Your task to perform on an android device: turn off data saver in the chrome app Image 0: 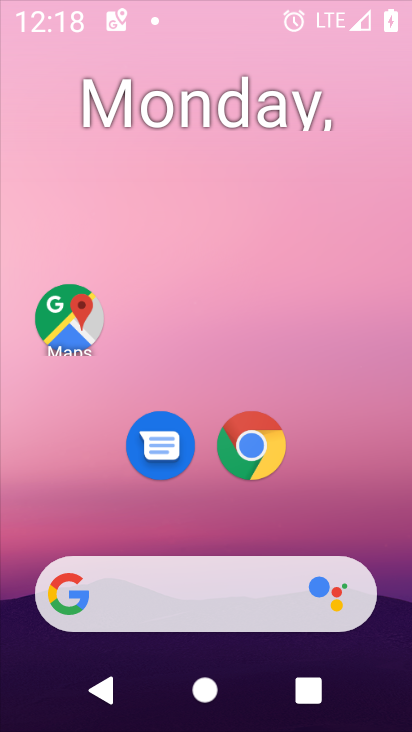
Step 0: drag from (159, 509) to (216, 181)
Your task to perform on an android device: turn off data saver in the chrome app Image 1: 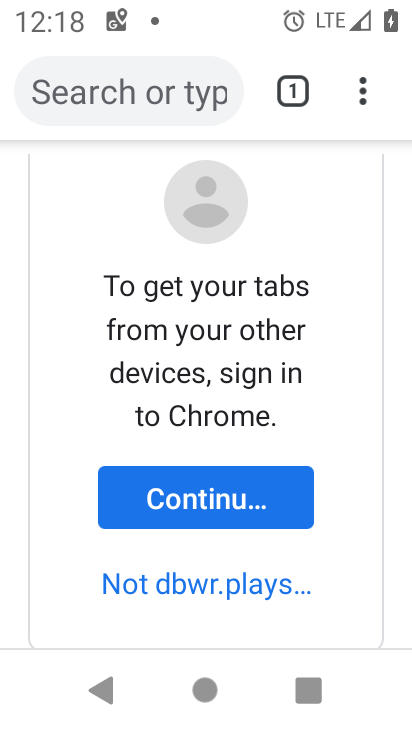
Step 1: press home button
Your task to perform on an android device: turn off data saver in the chrome app Image 2: 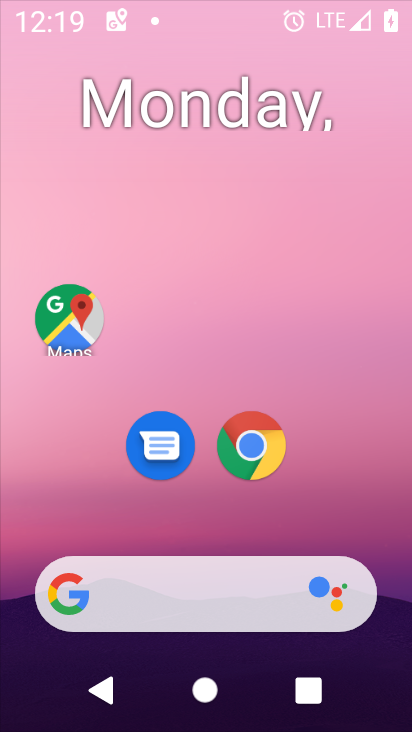
Step 2: drag from (183, 571) to (242, 167)
Your task to perform on an android device: turn off data saver in the chrome app Image 3: 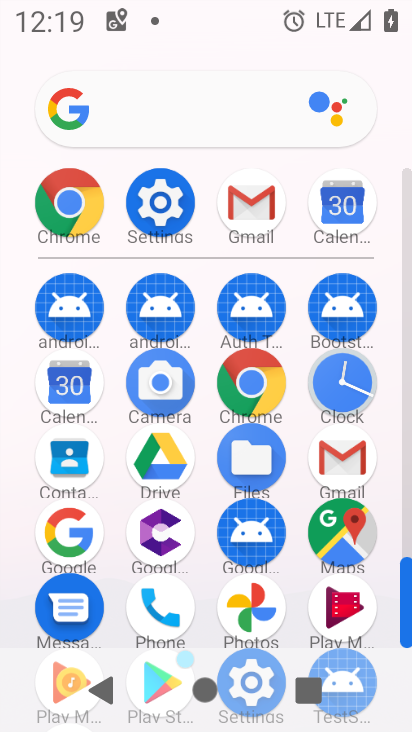
Step 3: click (230, 383)
Your task to perform on an android device: turn off data saver in the chrome app Image 4: 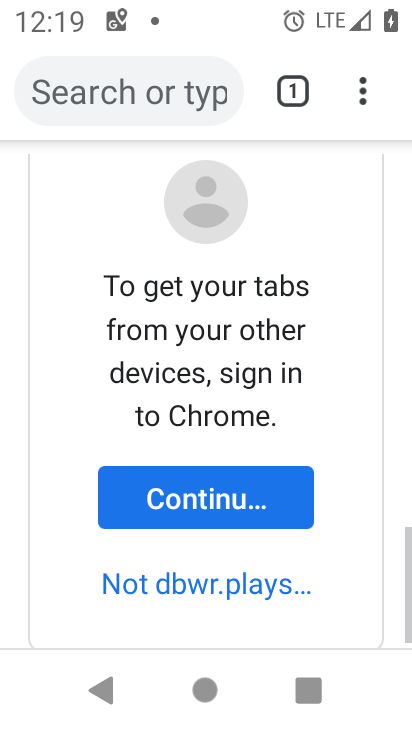
Step 4: drag from (270, 584) to (312, 304)
Your task to perform on an android device: turn off data saver in the chrome app Image 5: 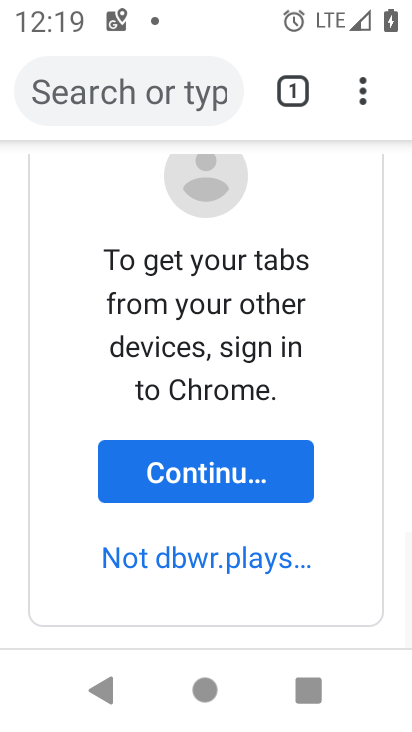
Step 5: click (367, 86)
Your task to perform on an android device: turn off data saver in the chrome app Image 6: 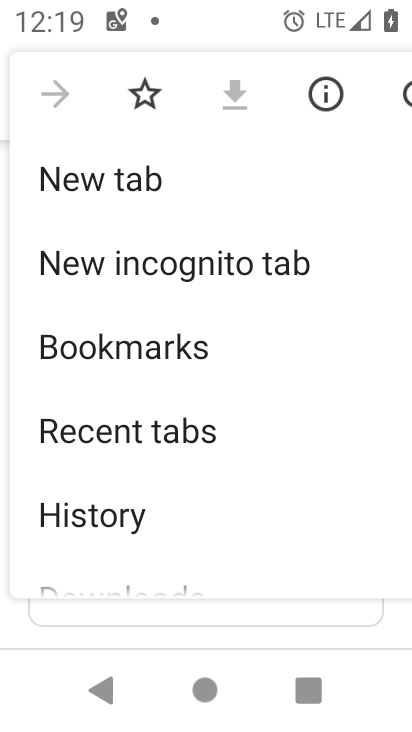
Step 6: drag from (201, 470) to (259, 200)
Your task to perform on an android device: turn off data saver in the chrome app Image 7: 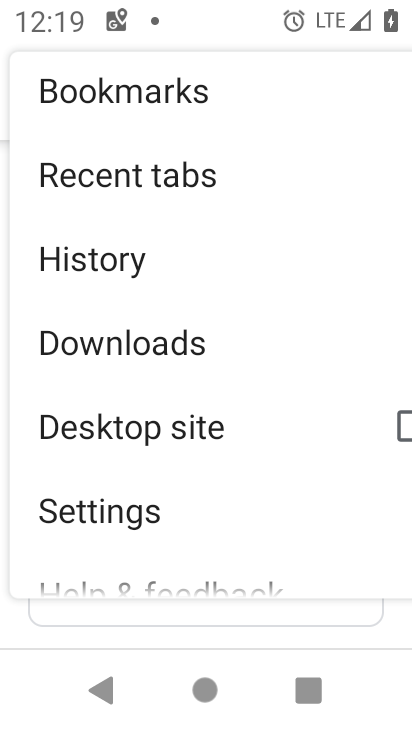
Step 7: click (163, 500)
Your task to perform on an android device: turn off data saver in the chrome app Image 8: 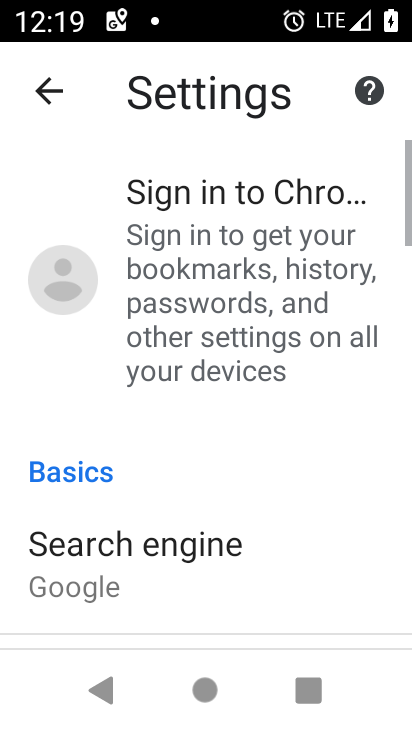
Step 8: click (44, 96)
Your task to perform on an android device: turn off data saver in the chrome app Image 9: 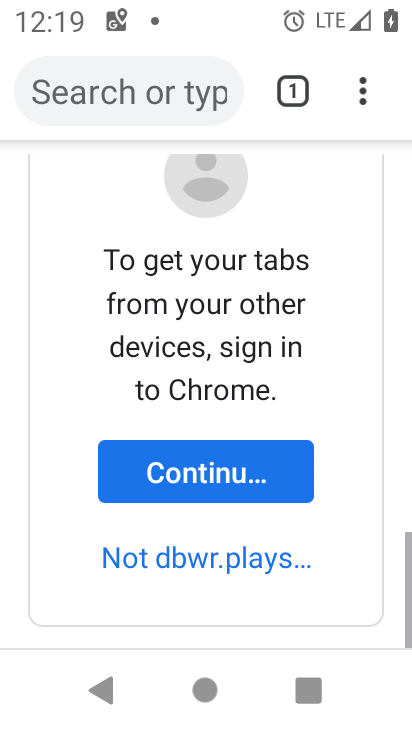
Step 9: drag from (228, 494) to (356, 34)
Your task to perform on an android device: turn off data saver in the chrome app Image 10: 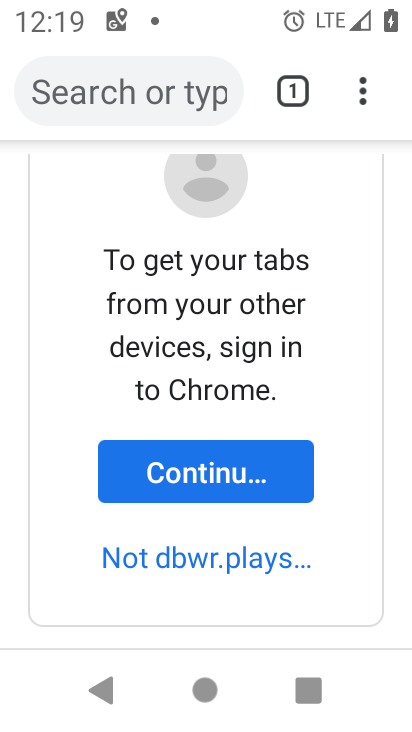
Step 10: drag from (247, 612) to (241, 342)
Your task to perform on an android device: turn off data saver in the chrome app Image 11: 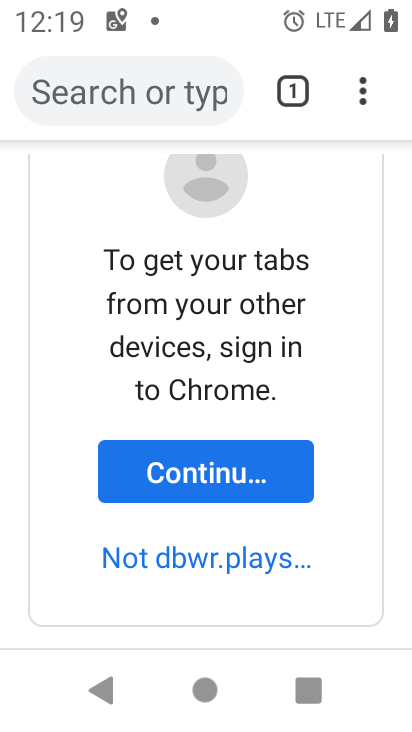
Step 11: drag from (195, 602) to (242, 61)
Your task to perform on an android device: turn off data saver in the chrome app Image 12: 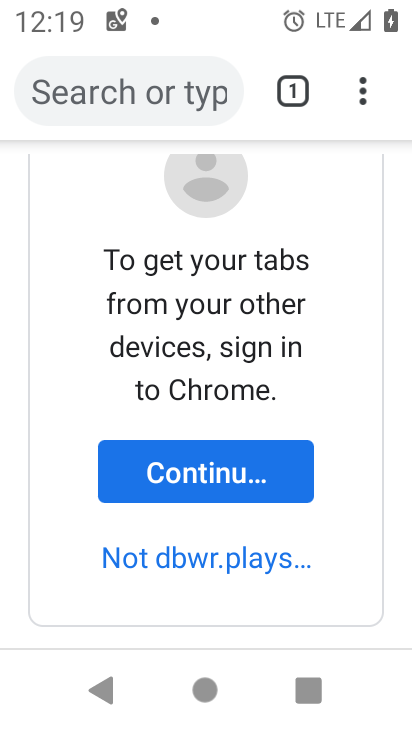
Step 12: drag from (282, 544) to (373, 151)
Your task to perform on an android device: turn off data saver in the chrome app Image 13: 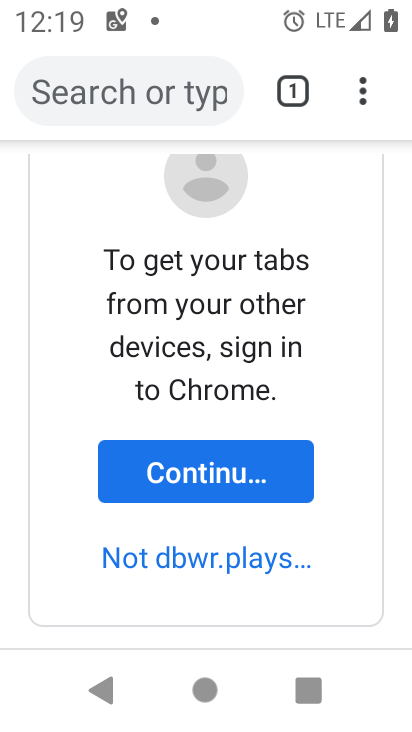
Step 13: drag from (310, 292) to (301, 677)
Your task to perform on an android device: turn off data saver in the chrome app Image 14: 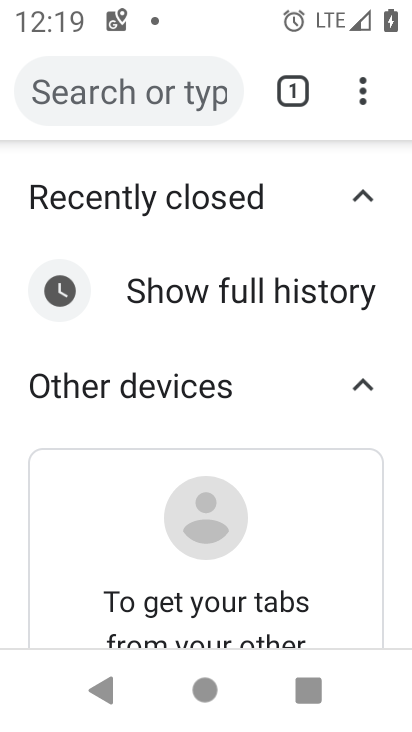
Step 14: drag from (370, 88) to (148, 476)
Your task to perform on an android device: turn off data saver in the chrome app Image 15: 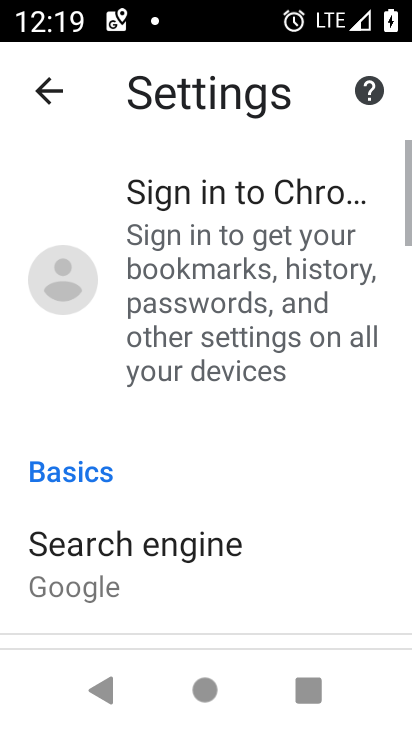
Step 15: drag from (248, 505) to (266, 191)
Your task to perform on an android device: turn off data saver in the chrome app Image 16: 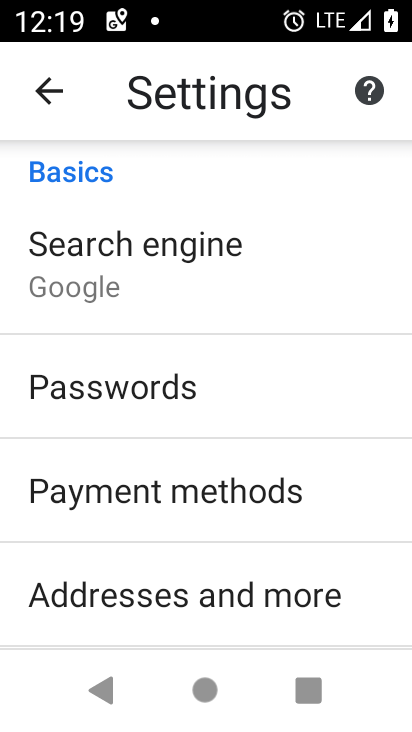
Step 16: drag from (212, 489) to (290, 120)
Your task to perform on an android device: turn off data saver in the chrome app Image 17: 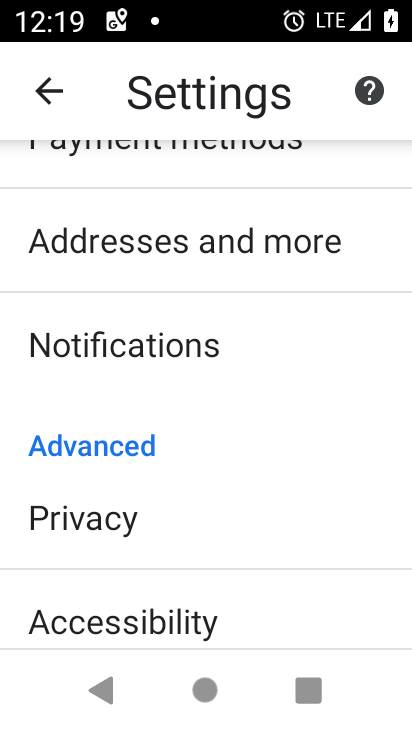
Step 17: drag from (198, 541) to (227, 267)
Your task to perform on an android device: turn off data saver in the chrome app Image 18: 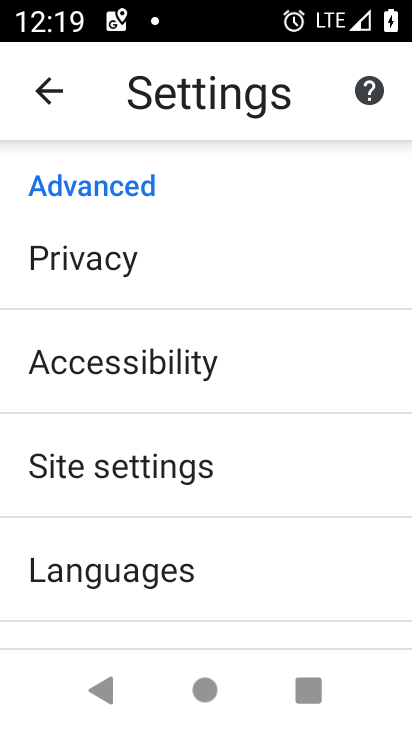
Step 18: drag from (200, 564) to (310, 199)
Your task to perform on an android device: turn off data saver in the chrome app Image 19: 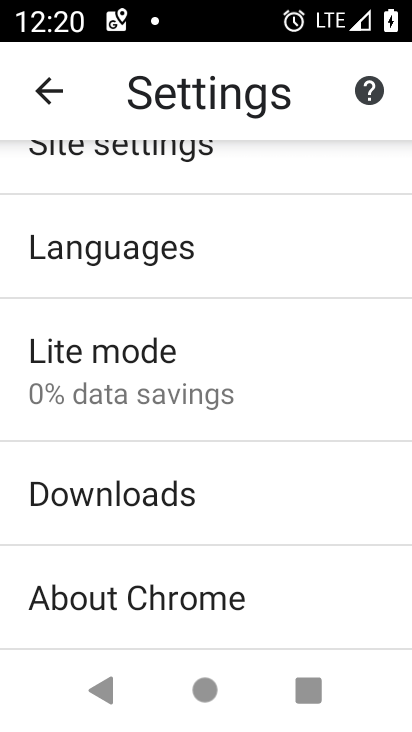
Step 19: click (252, 362)
Your task to perform on an android device: turn off data saver in the chrome app Image 20: 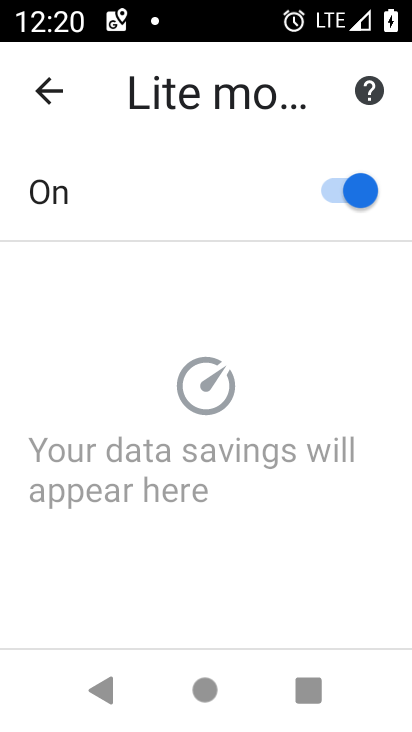
Step 20: click (327, 180)
Your task to perform on an android device: turn off data saver in the chrome app Image 21: 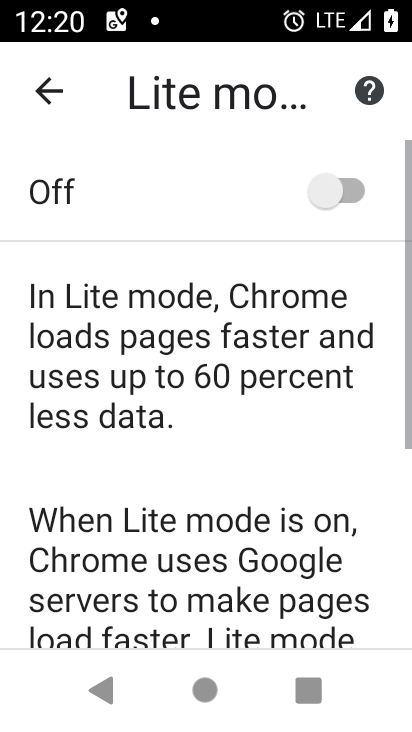
Step 21: task complete